Your task to perform on an android device: Check the news Image 0: 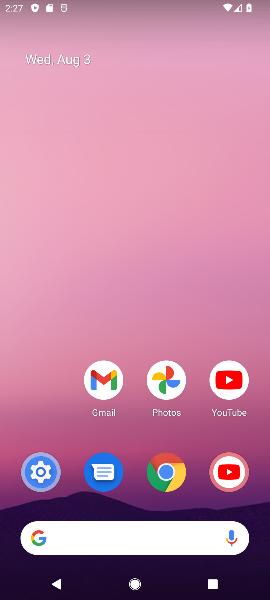
Step 0: drag from (195, 492) to (110, 188)
Your task to perform on an android device: Check the news Image 1: 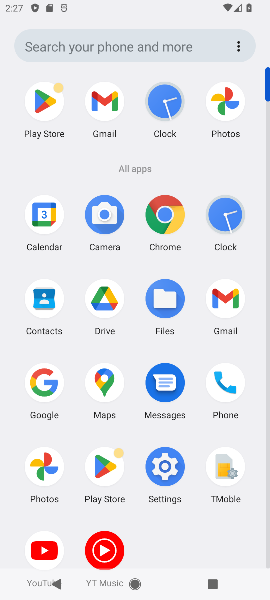
Step 1: click (41, 382)
Your task to perform on an android device: Check the news Image 2: 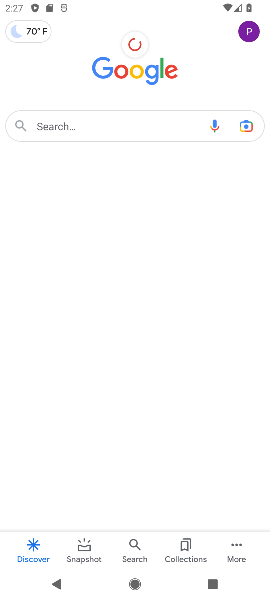
Step 2: click (57, 130)
Your task to perform on an android device: Check the news Image 3: 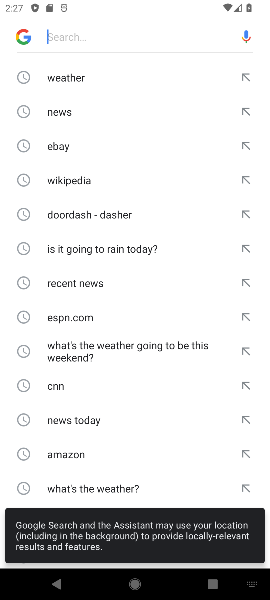
Step 3: click (86, 119)
Your task to perform on an android device: Check the news Image 4: 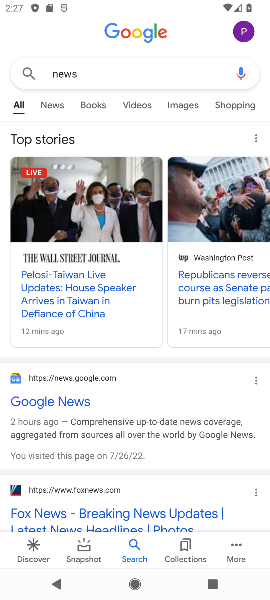
Step 4: task complete